Your task to perform on an android device: turn on javascript in the chrome app Image 0: 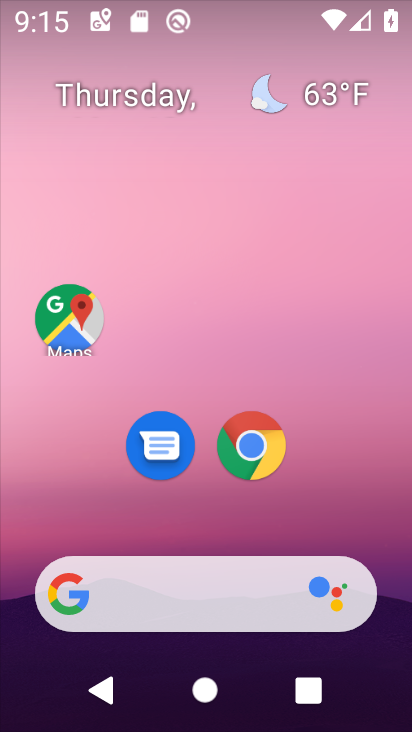
Step 0: drag from (261, 503) to (262, 189)
Your task to perform on an android device: turn on javascript in the chrome app Image 1: 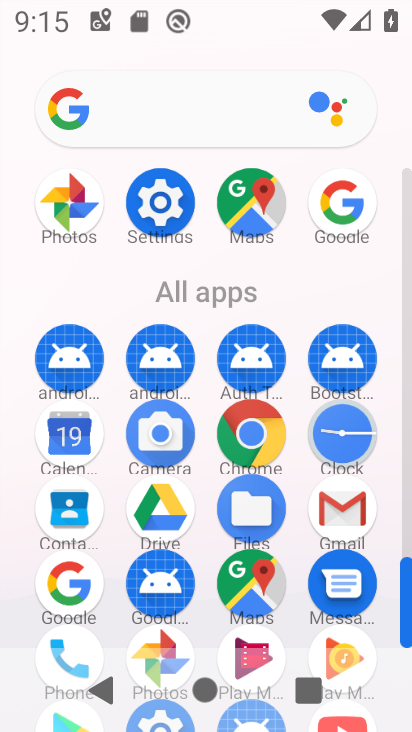
Step 1: click (262, 437)
Your task to perform on an android device: turn on javascript in the chrome app Image 2: 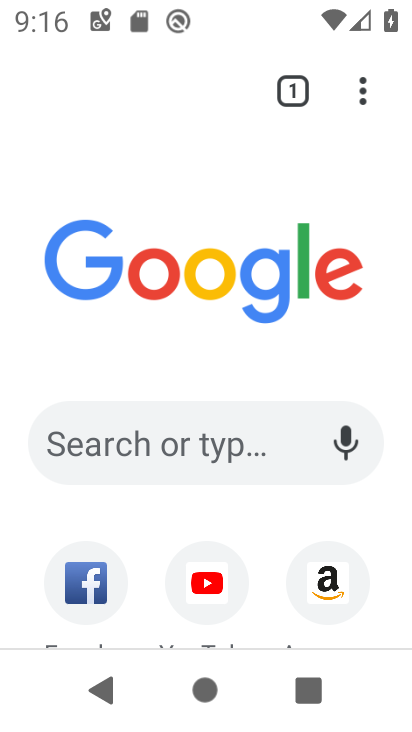
Step 2: click (373, 96)
Your task to perform on an android device: turn on javascript in the chrome app Image 3: 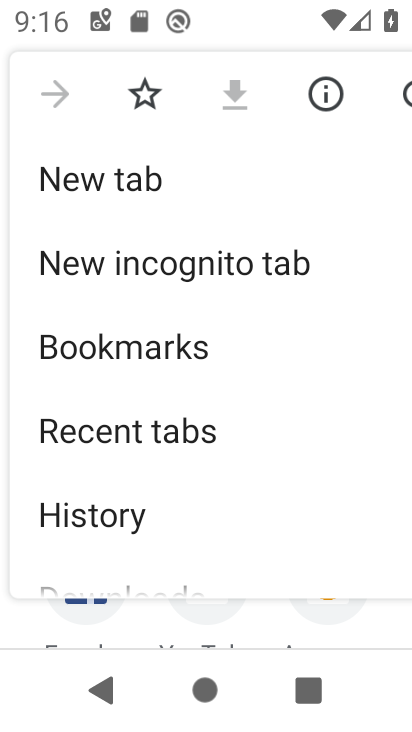
Step 3: drag from (197, 512) to (217, 250)
Your task to perform on an android device: turn on javascript in the chrome app Image 4: 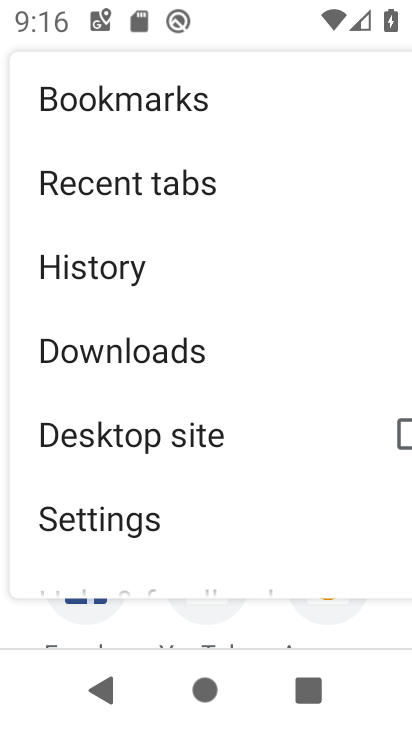
Step 4: click (161, 530)
Your task to perform on an android device: turn on javascript in the chrome app Image 5: 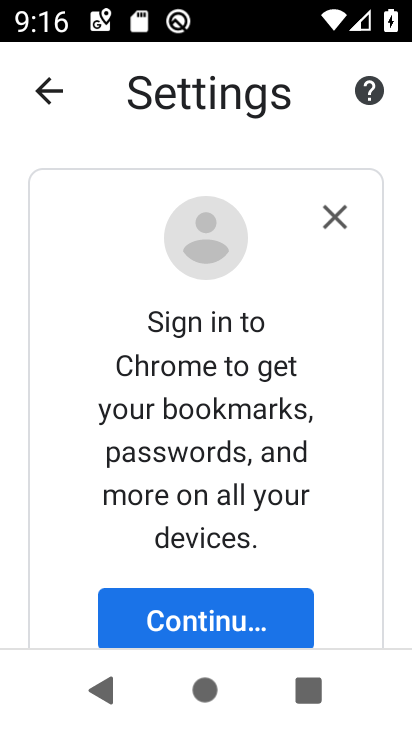
Step 5: click (244, 611)
Your task to perform on an android device: turn on javascript in the chrome app Image 6: 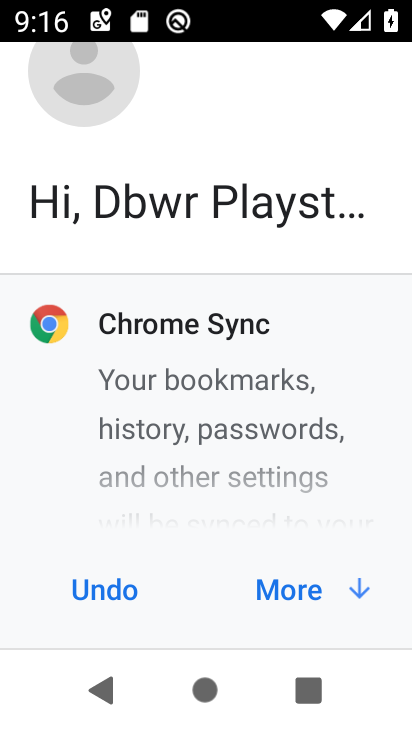
Step 6: click (301, 598)
Your task to perform on an android device: turn on javascript in the chrome app Image 7: 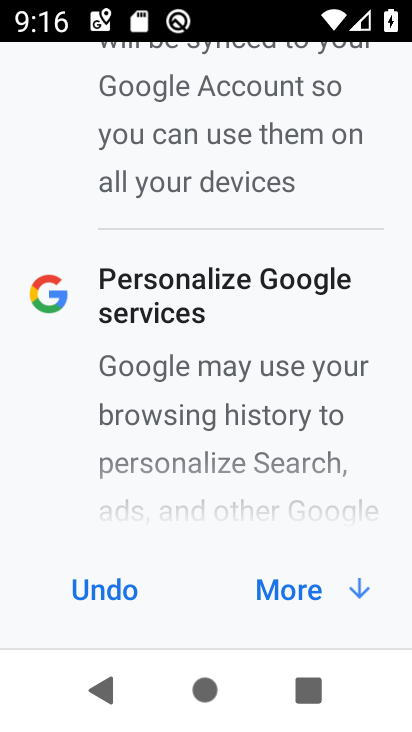
Step 7: drag from (295, 554) to (289, 236)
Your task to perform on an android device: turn on javascript in the chrome app Image 8: 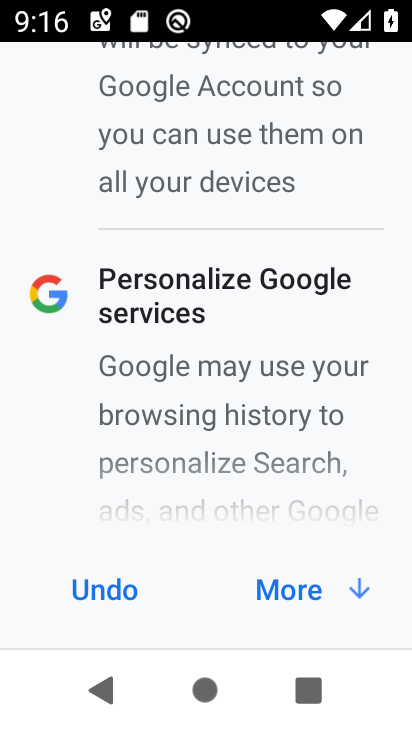
Step 8: drag from (298, 466) to (311, 259)
Your task to perform on an android device: turn on javascript in the chrome app Image 9: 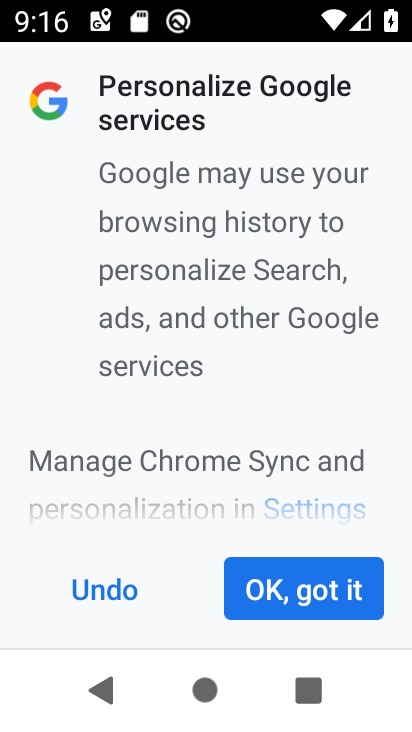
Step 9: click (303, 584)
Your task to perform on an android device: turn on javascript in the chrome app Image 10: 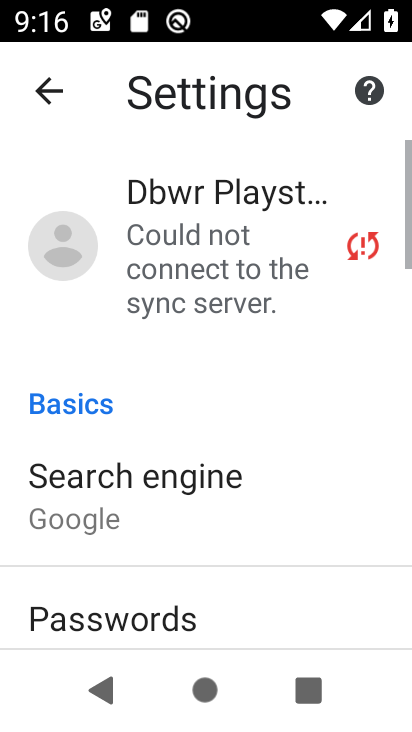
Step 10: drag from (293, 580) to (303, 192)
Your task to perform on an android device: turn on javascript in the chrome app Image 11: 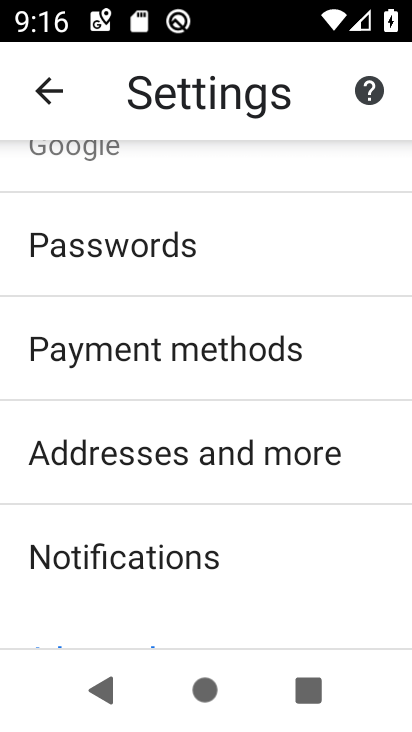
Step 11: drag from (249, 529) to (255, 171)
Your task to perform on an android device: turn on javascript in the chrome app Image 12: 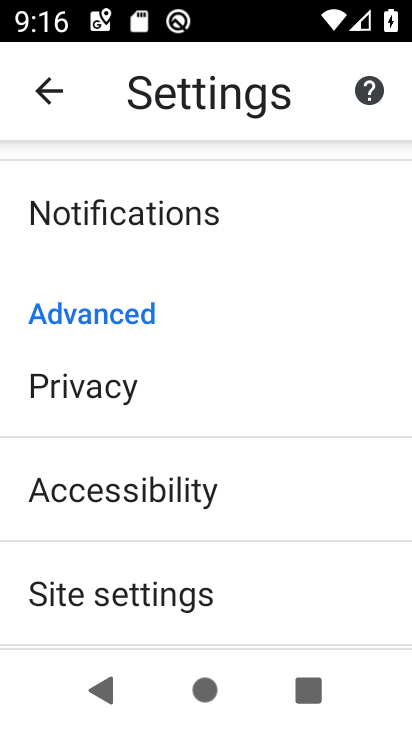
Step 12: click (188, 604)
Your task to perform on an android device: turn on javascript in the chrome app Image 13: 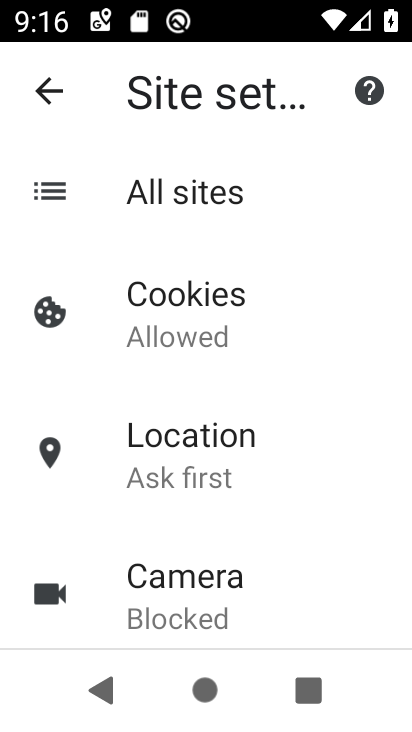
Step 13: drag from (214, 556) to (217, 303)
Your task to perform on an android device: turn on javascript in the chrome app Image 14: 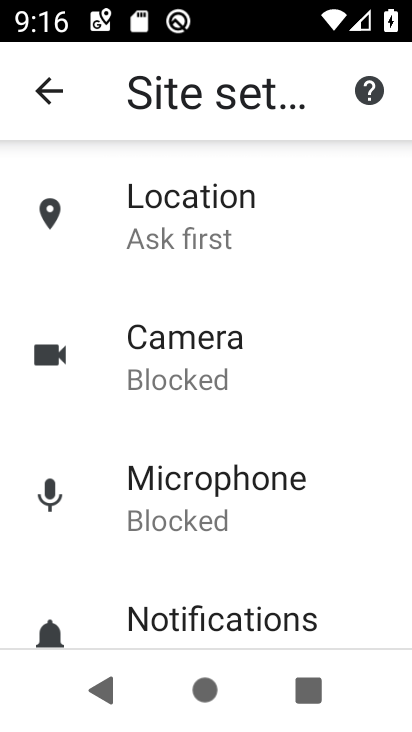
Step 14: drag from (216, 521) to (266, 257)
Your task to perform on an android device: turn on javascript in the chrome app Image 15: 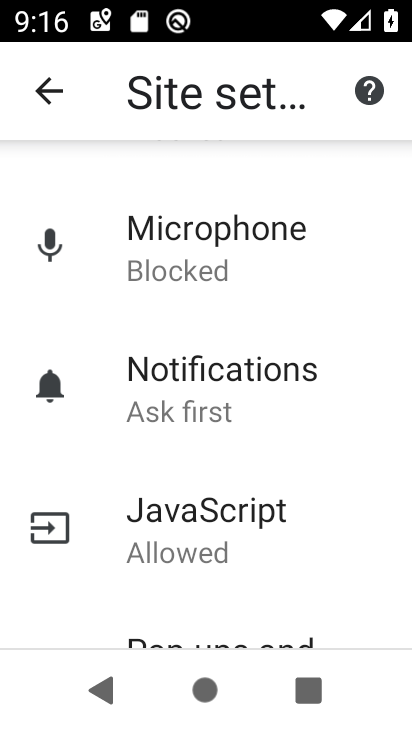
Step 15: click (220, 537)
Your task to perform on an android device: turn on javascript in the chrome app Image 16: 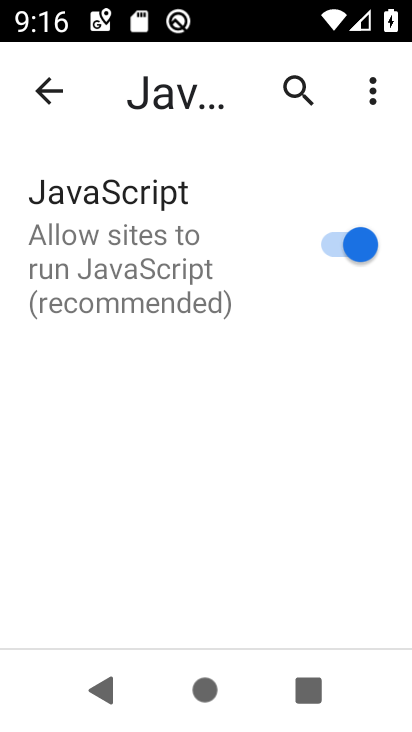
Step 16: task complete